Your task to perform on an android device: turn pop-ups off in chrome Image 0: 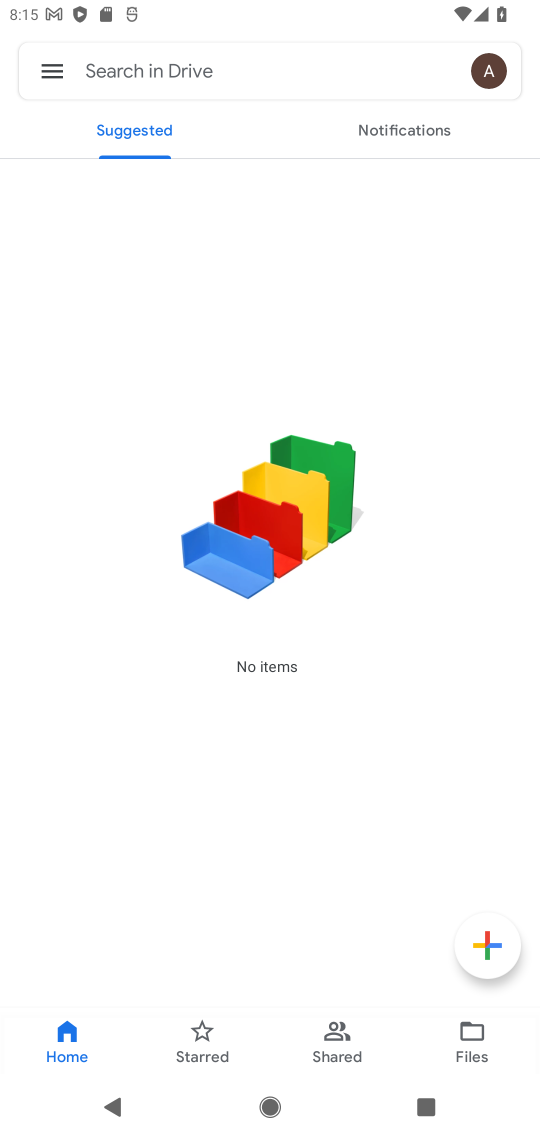
Step 0: press home button
Your task to perform on an android device: turn pop-ups off in chrome Image 1: 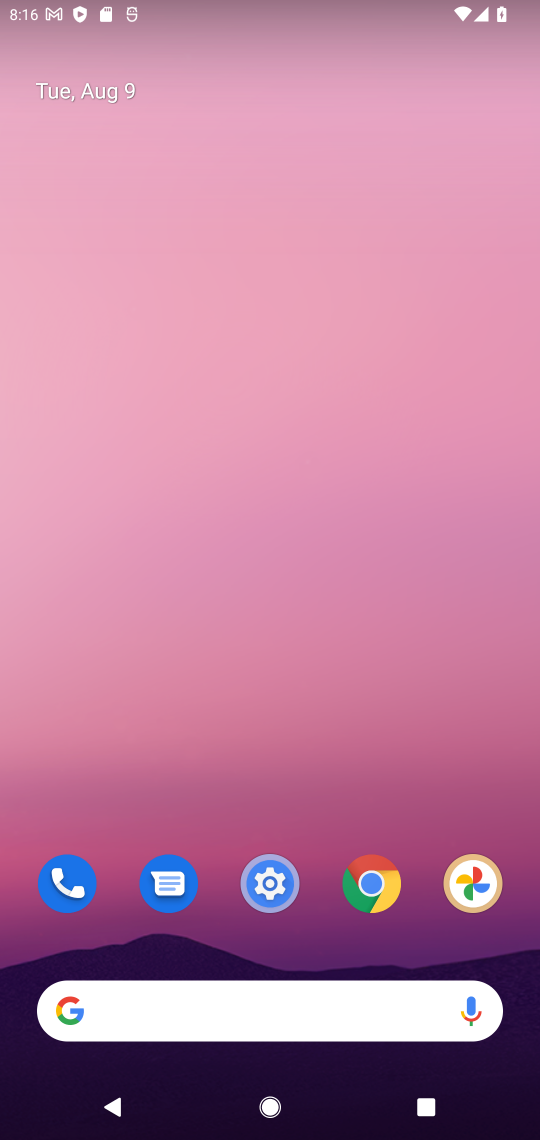
Step 1: drag from (293, 687) to (299, 0)
Your task to perform on an android device: turn pop-ups off in chrome Image 2: 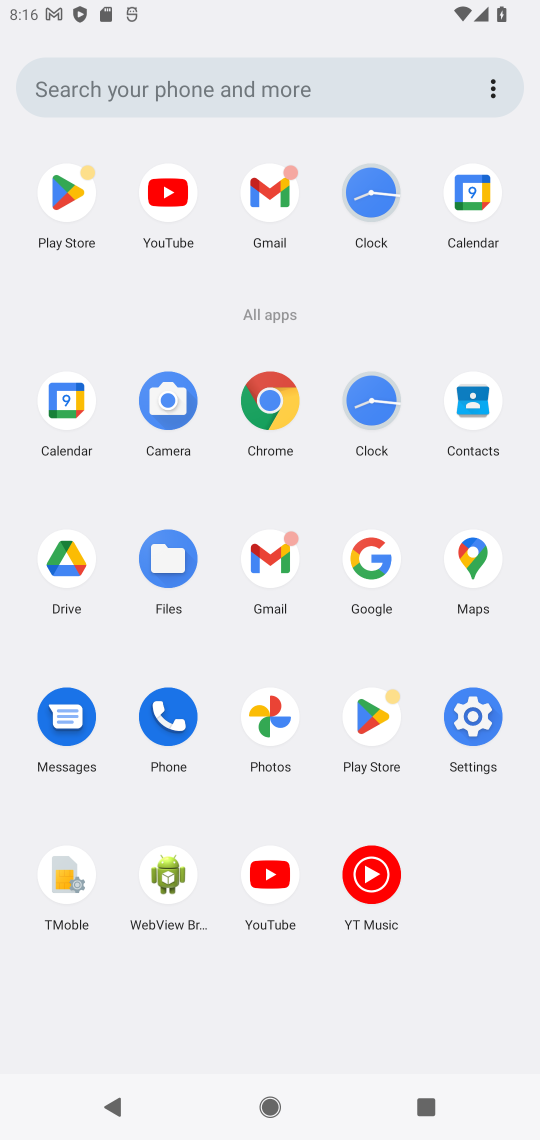
Step 2: click (266, 402)
Your task to perform on an android device: turn pop-ups off in chrome Image 3: 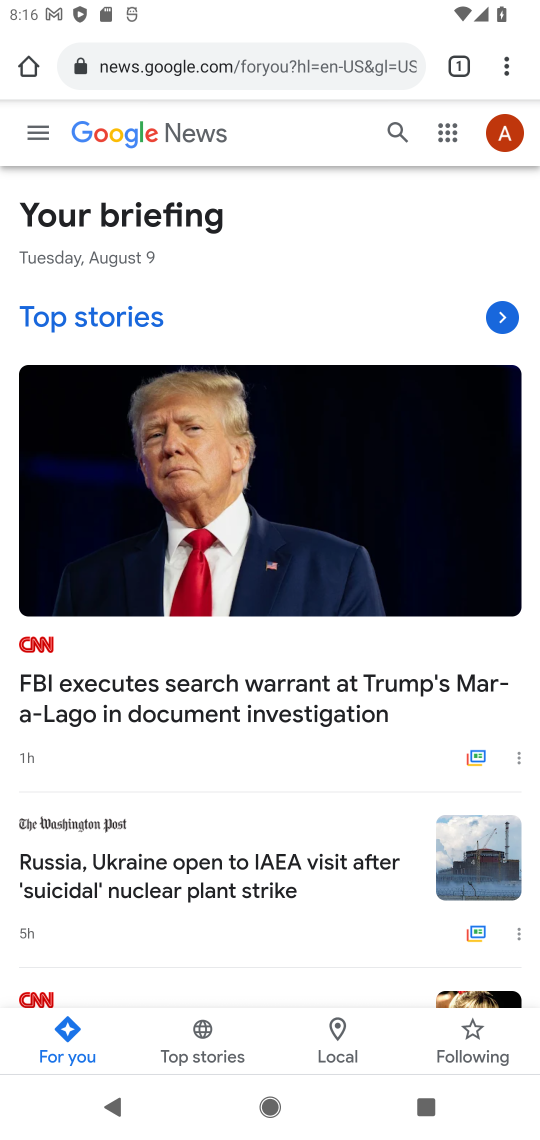
Step 3: drag from (504, 61) to (318, 794)
Your task to perform on an android device: turn pop-ups off in chrome Image 4: 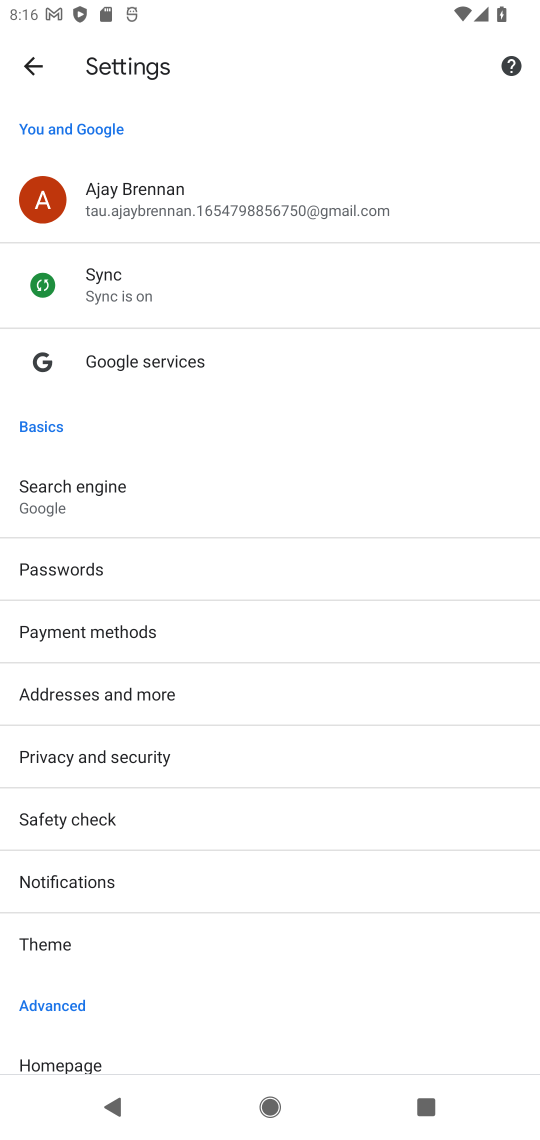
Step 4: drag from (99, 1014) to (218, 440)
Your task to perform on an android device: turn pop-ups off in chrome Image 5: 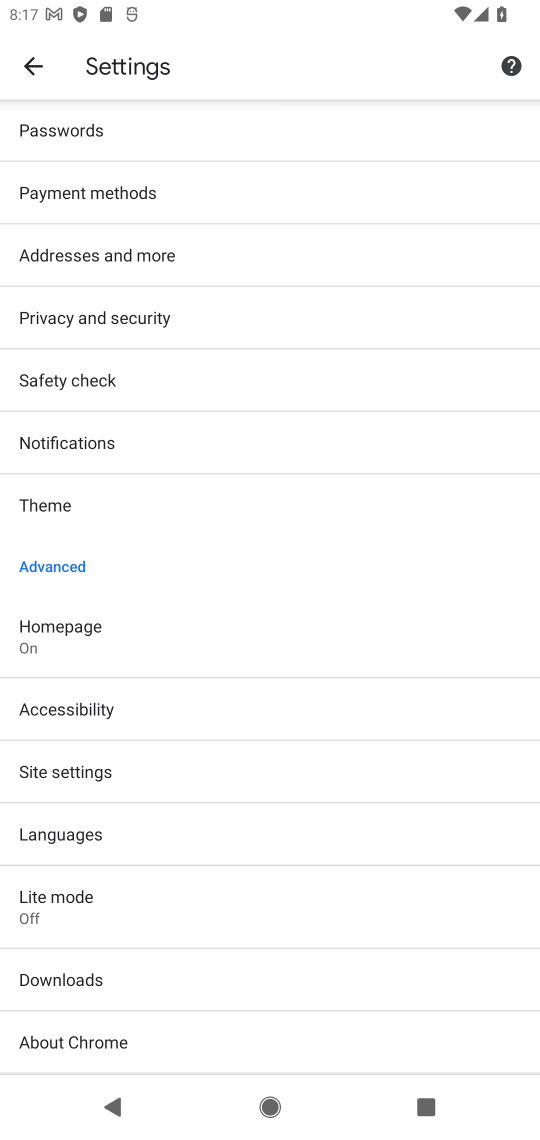
Step 5: click (90, 777)
Your task to perform on an android device: turn pop-ups off in chrome Image 6: 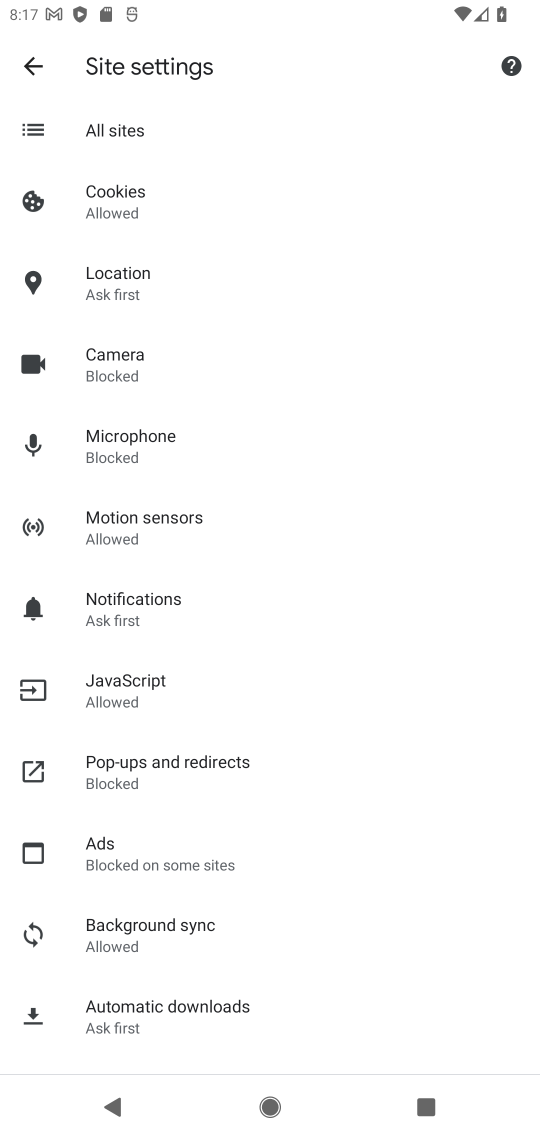
Step 6: click (129, 761)
Your task to perform on an android device: turn pop-ups off in chrome Image 7: 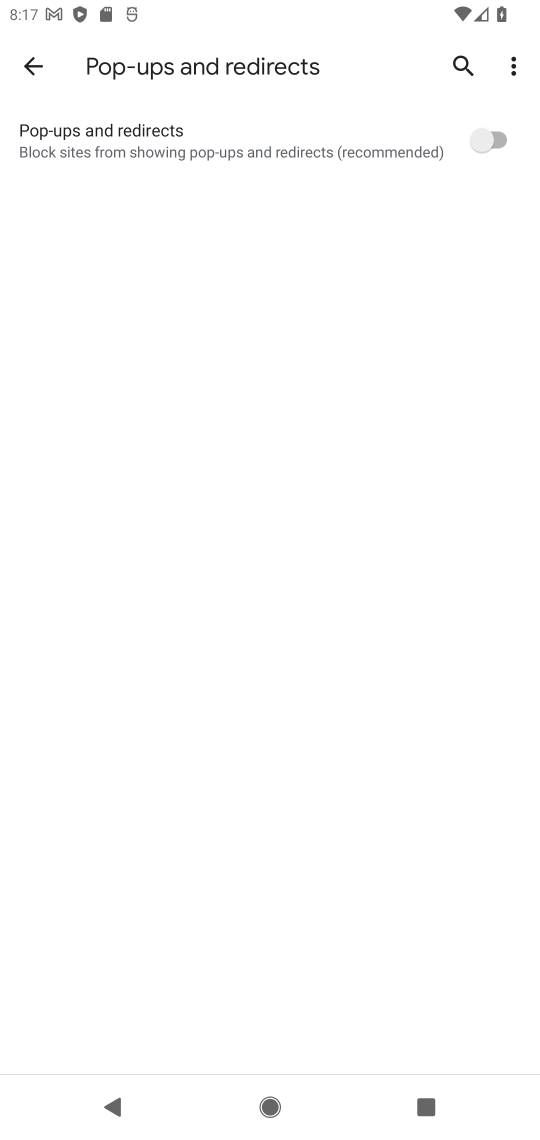
Step 7: task complete